Your task to perform on an android device: Open Reddit.com Image 0: 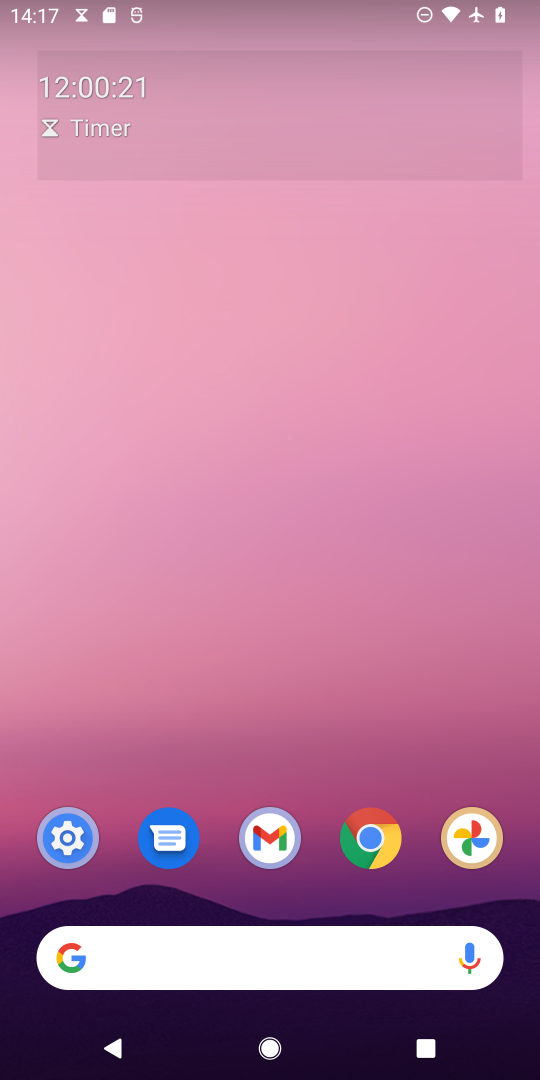
Step 0: click (68, 954)
Your task to perform on an android device: Open Reddit.com Image 1: 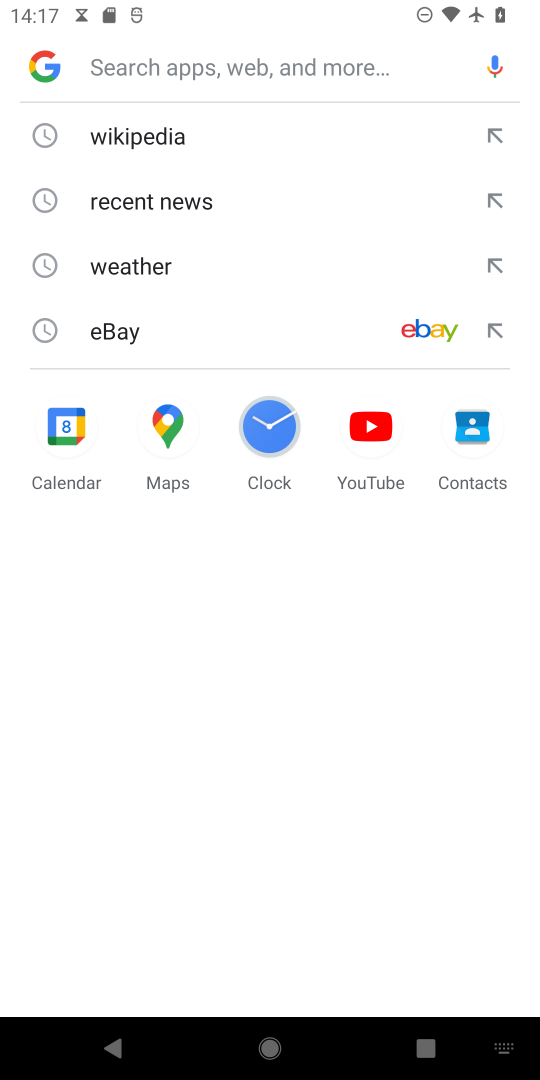
Step 1: type "Reddit.com"
Your task to perform on an android device: Open Reddit.com Image 2: 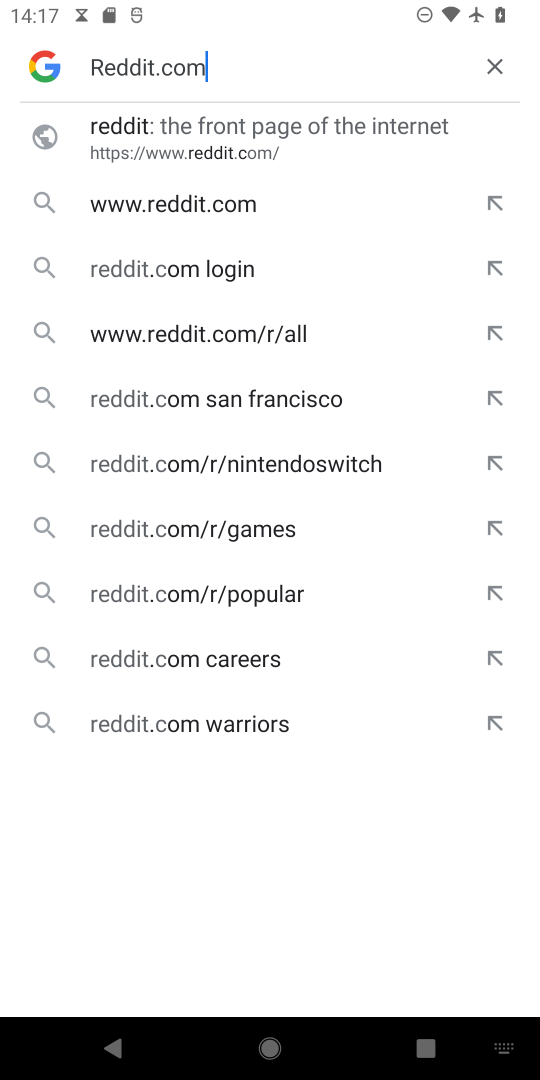
Step 2: press enter
Your task to perform on an android device: Open Reddit.com Image 3: 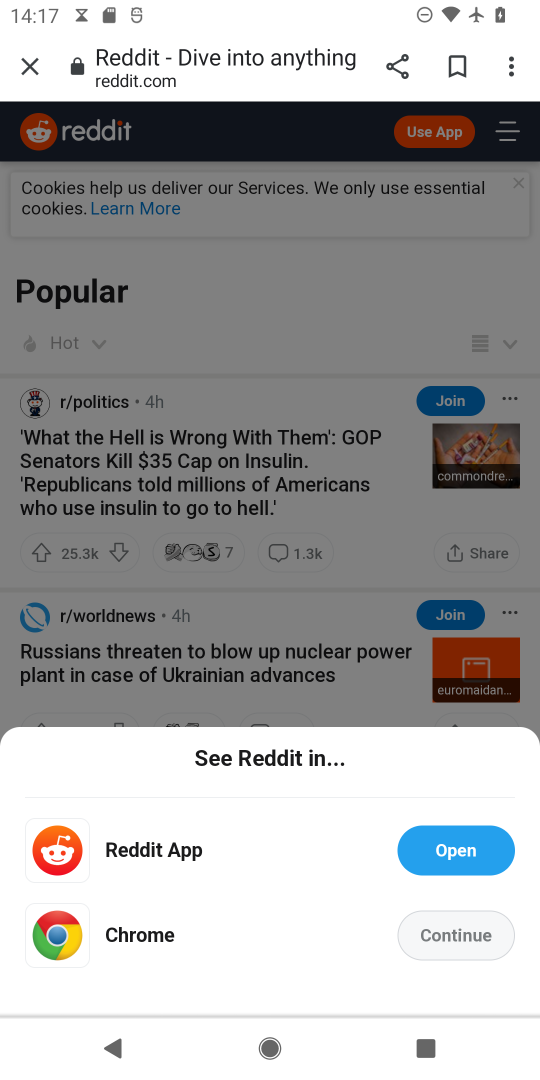
Step 3: task complete